Your task to perform on an android device: turn notification dots on Image 0: 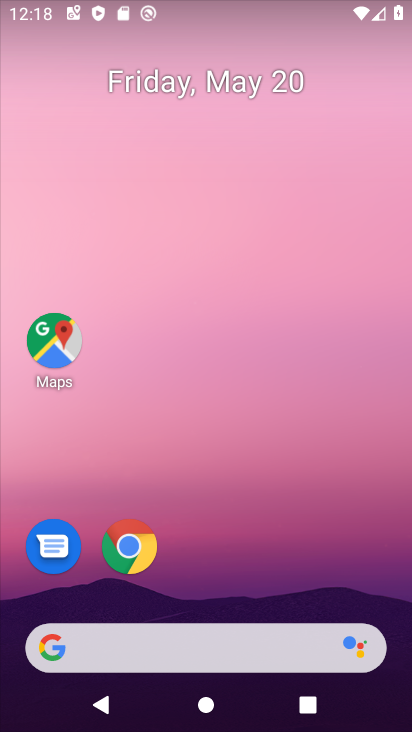
Step 0: drag from (240, 541) to (214, 0)
Your task to perform on an android device: turn notification dots on Image 1: 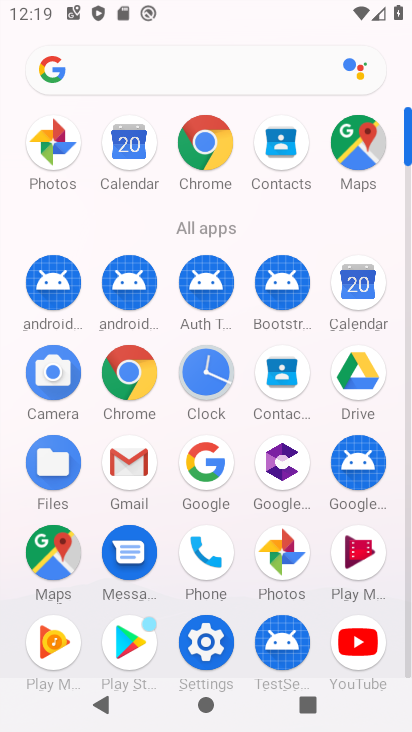
Step 1: click (207, 629)
Your task to perform on an android device: turn notification dots on Image 2: 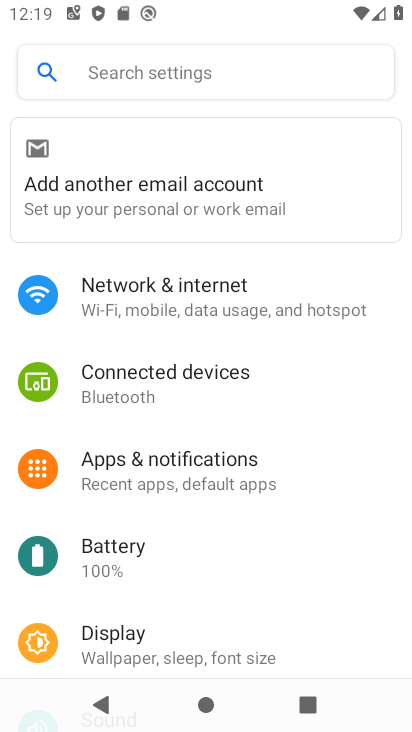
Step 2: click (240, 475)
Your task to perform on an android device: turn notification dots on Image 3: 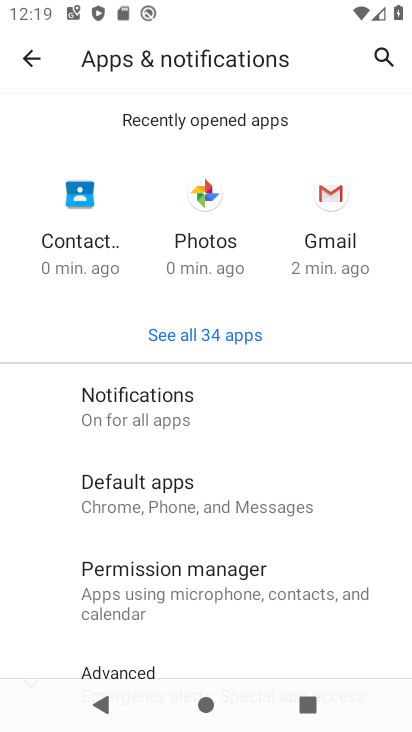
Step 3: click (218, 413)
Your task to perform on an android device: turn notification dots on Image 4: 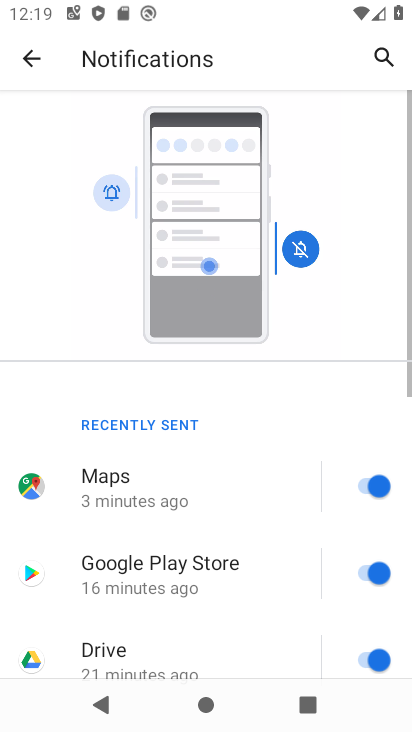
Step 4: drag from (221, 590) to (246, 9)
Your task to perform on an android device: turn notification dots on Image 5: 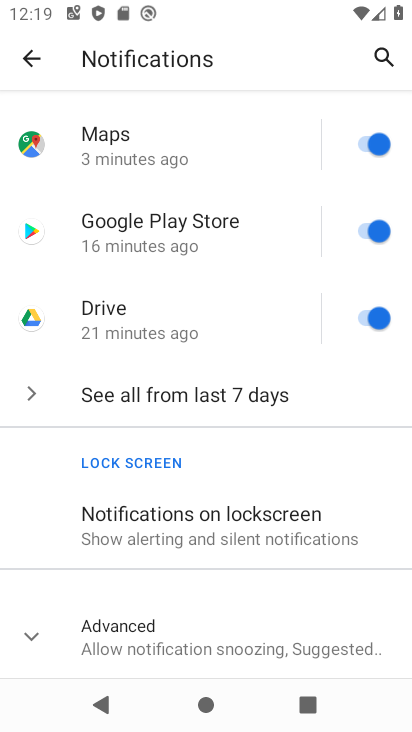
Step 5: click (31, 626)
Your task to perform on an android device: turn notification dots on Image 6: 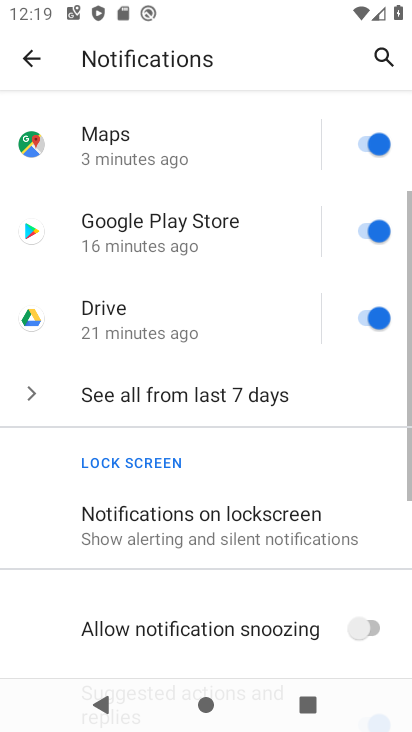
Step 6: task complete